Your task to perform on an android device: clear all cookies in the chrome app Image 0: 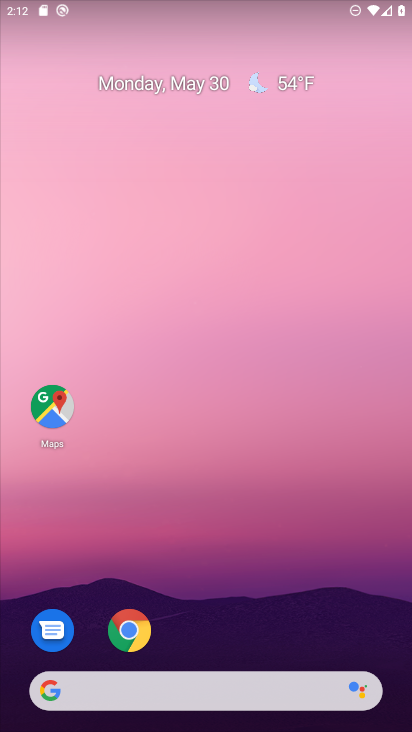
Step 0: click (122, 635)
Your task to perform on an android device: clear all cookies in the chrome app Image 1: 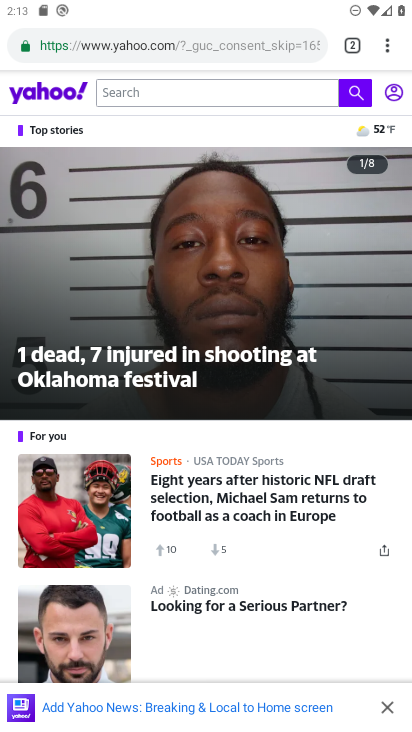
Step 1: task complete